Your task to perform on an android device: What's the weather like in Seoul? Image 0: 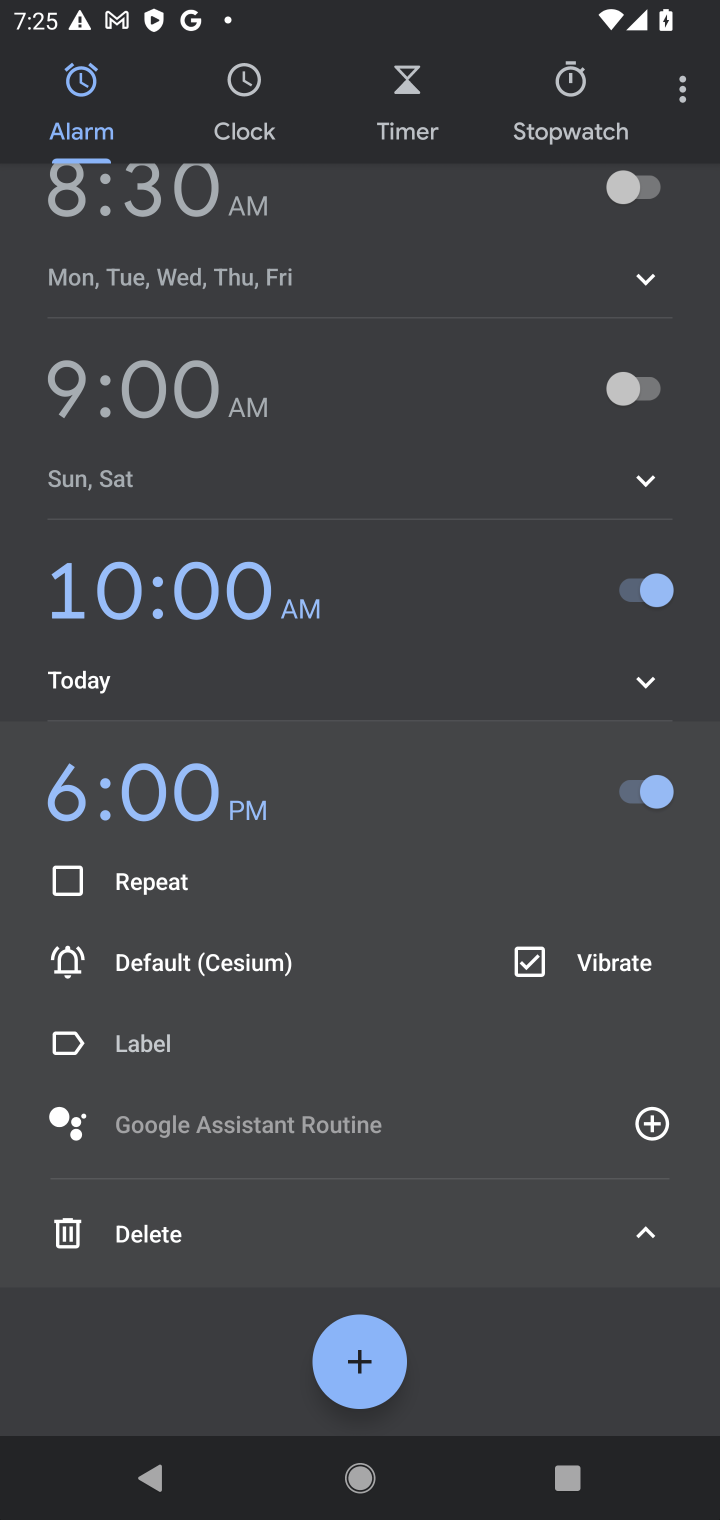
Step 0: press home button
Your task to perform on an android device: What's the weather like in Seoul? Image 1: 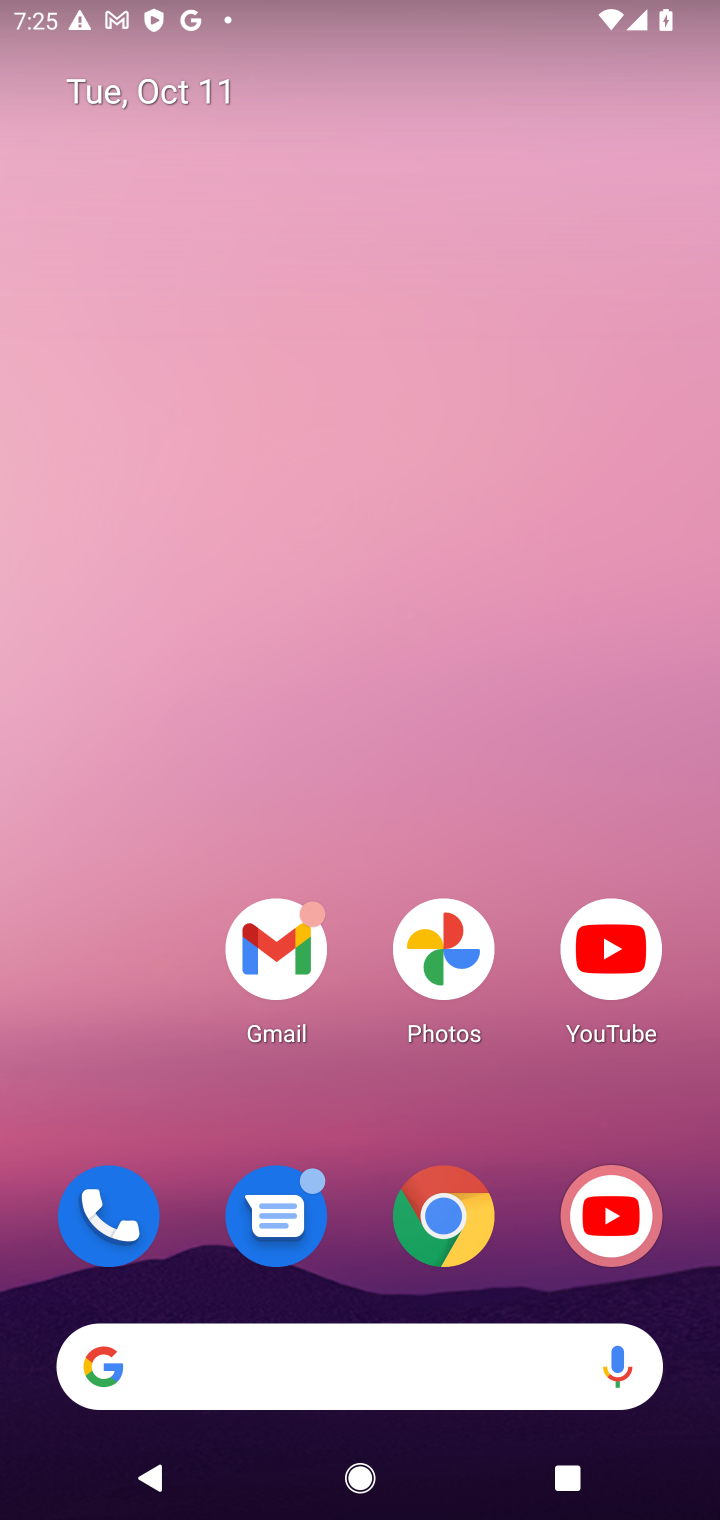
Step 1: click (429, 1214)
Your task to perform on an android device: What's the weather like in Seoul? Image 2: 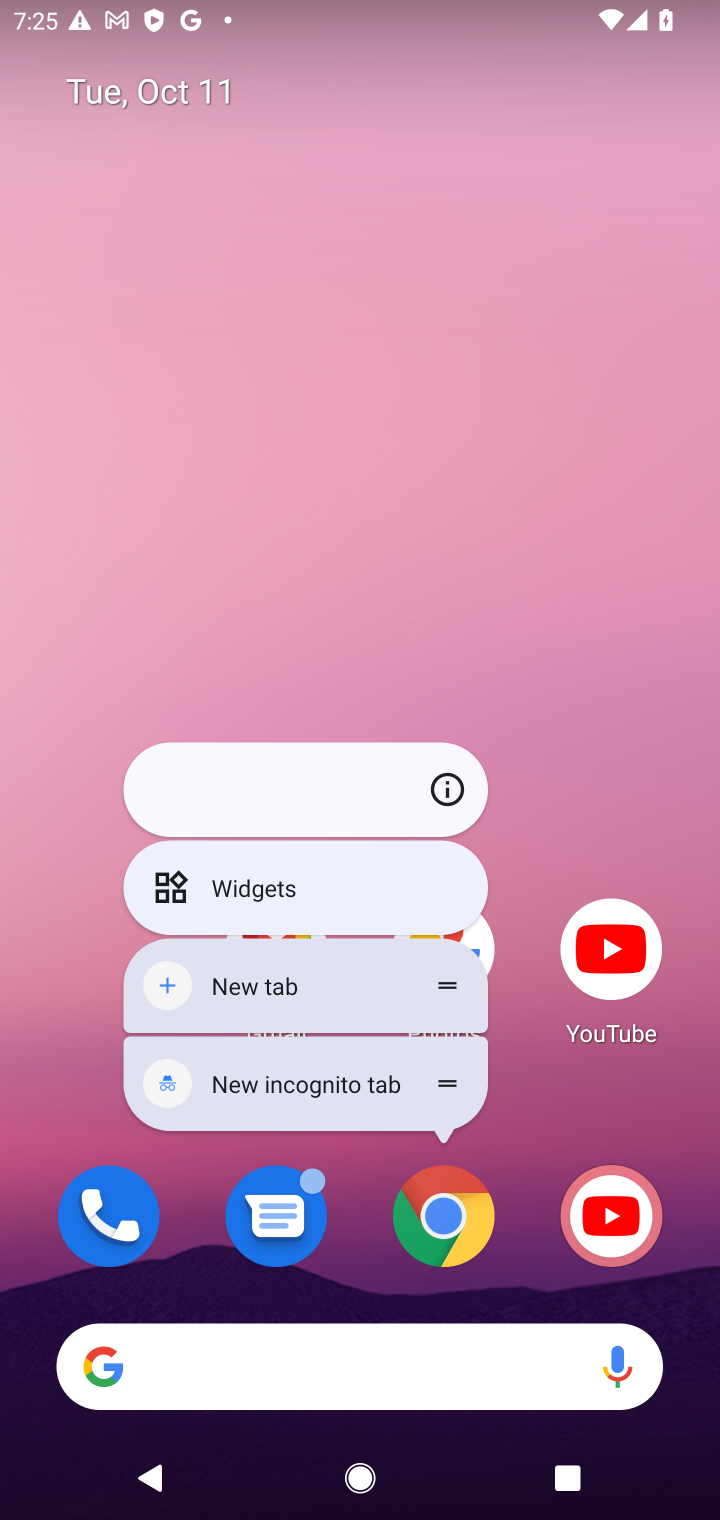
Step 2: click (466, 1219)
Your task to perform on an android device: What's the weather like in Seoul? Image 3: 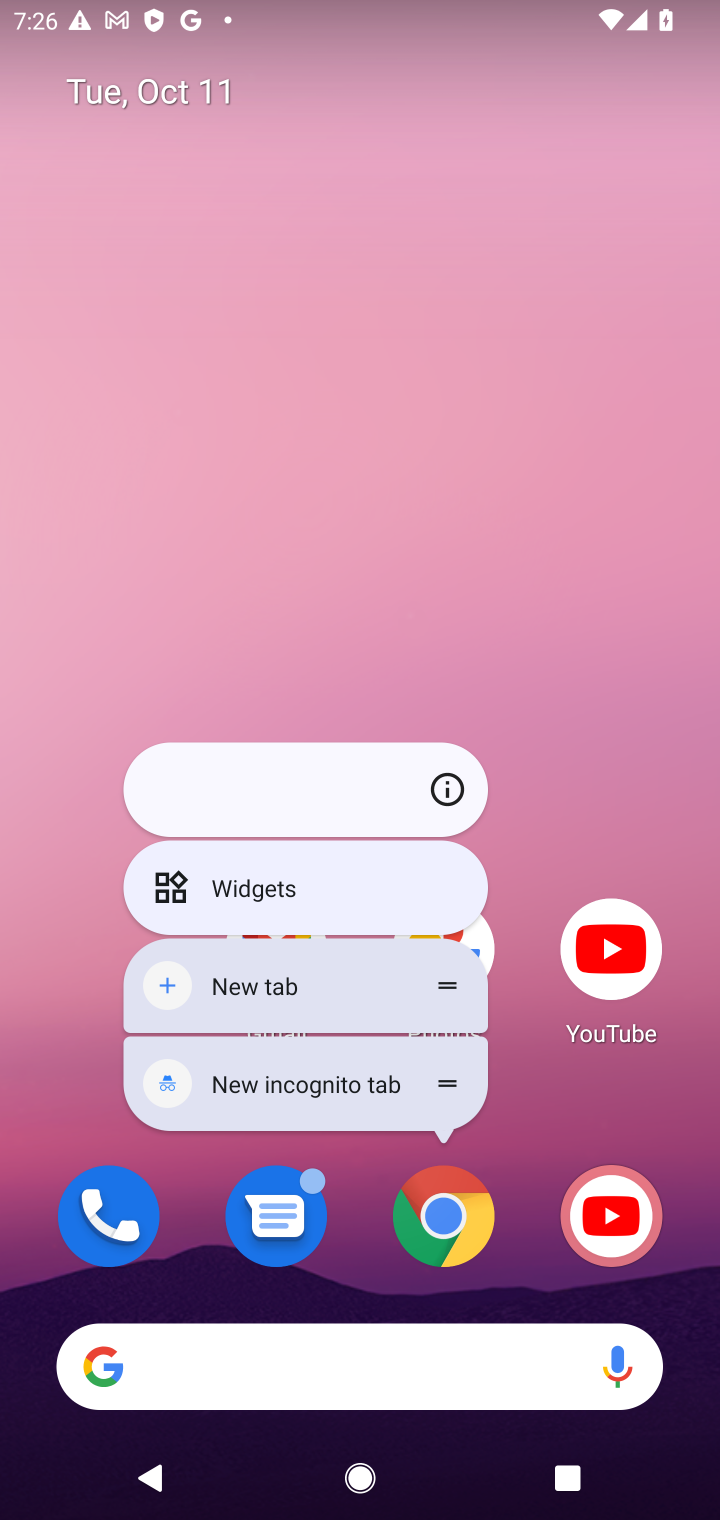
Step 3: click (459, 1224)
Your task to perform on an android device: What's the weather like in Seoul? Image 4: 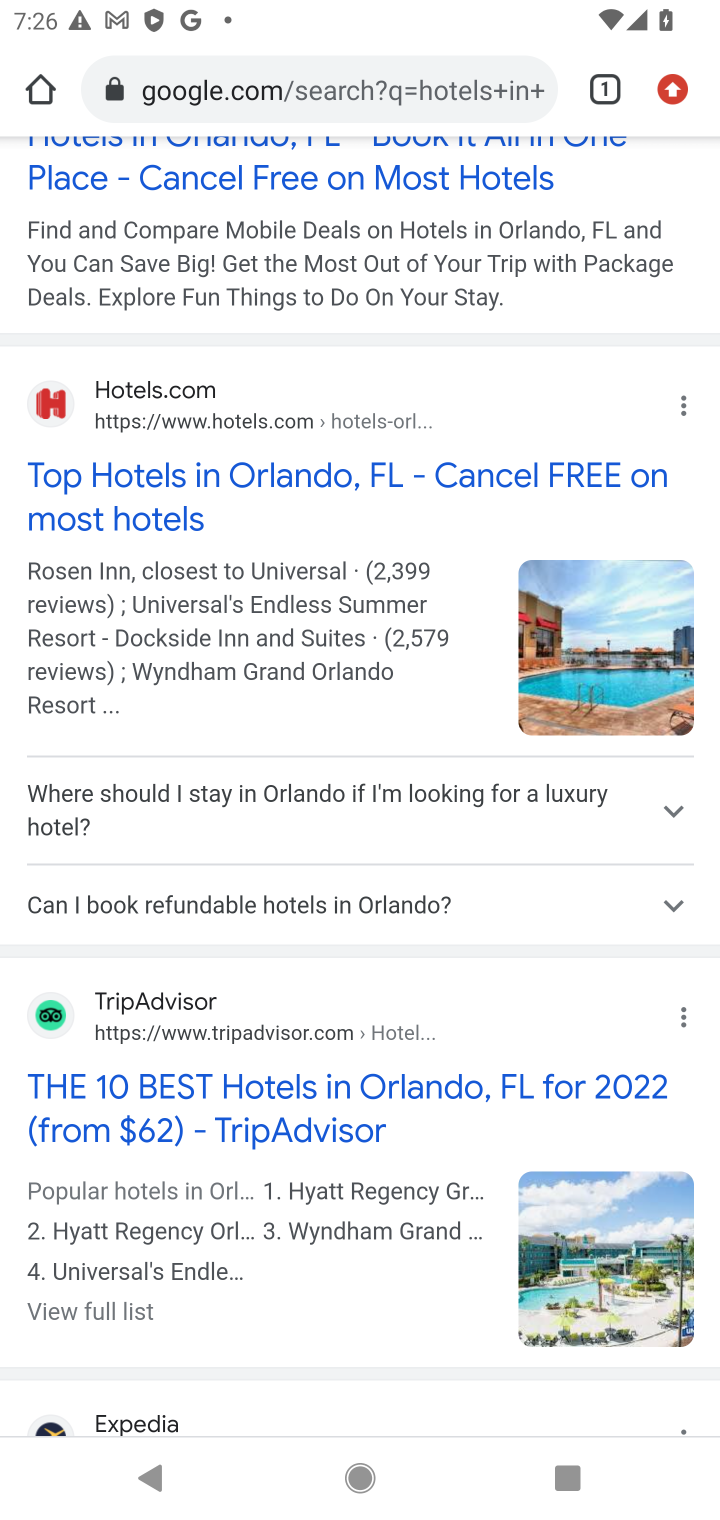
Step 4: click (309, 93)
Your task to perform on an android device: What's the weather like in Seoul? Image 5: 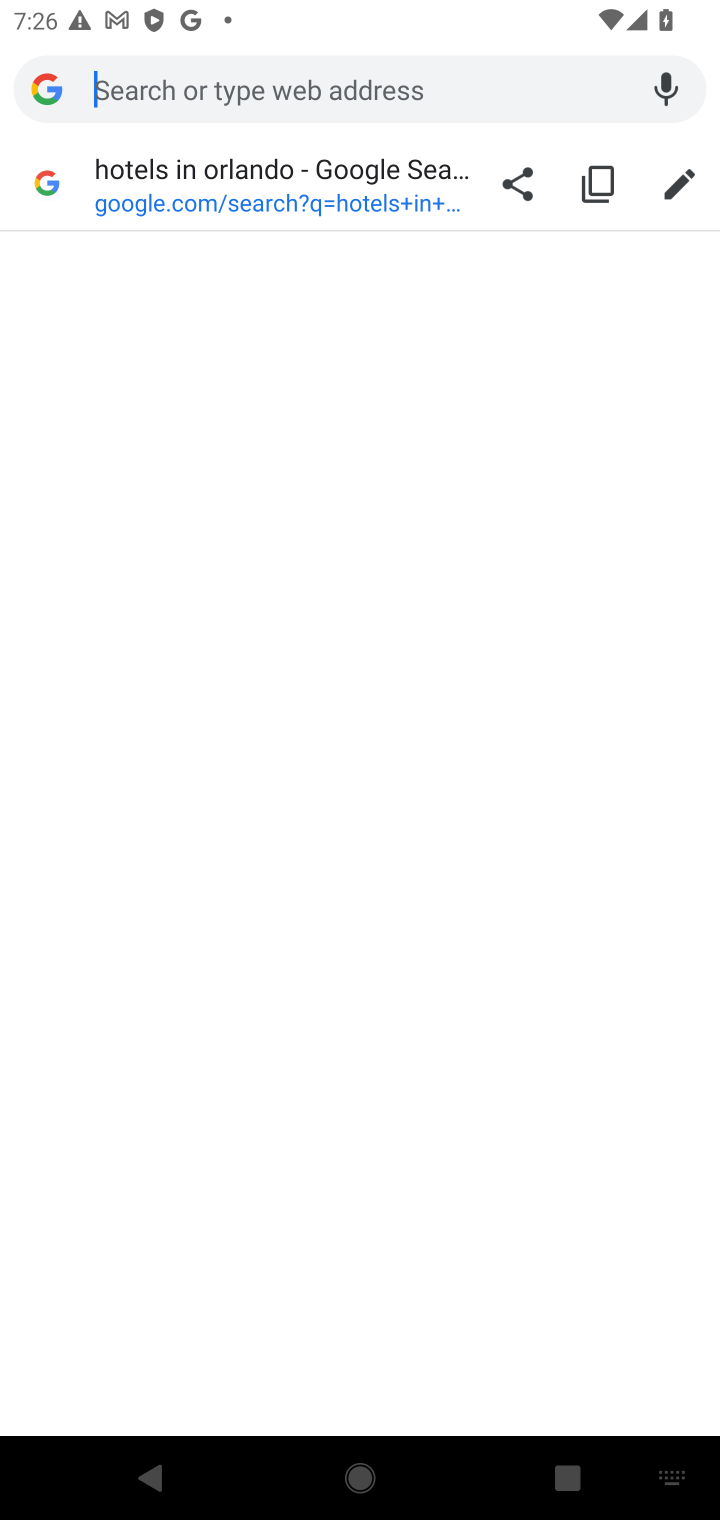
Step 5: type "weather in seoul"
Your task to perform on an android device: What's the weather like in Seoul? Image 6: 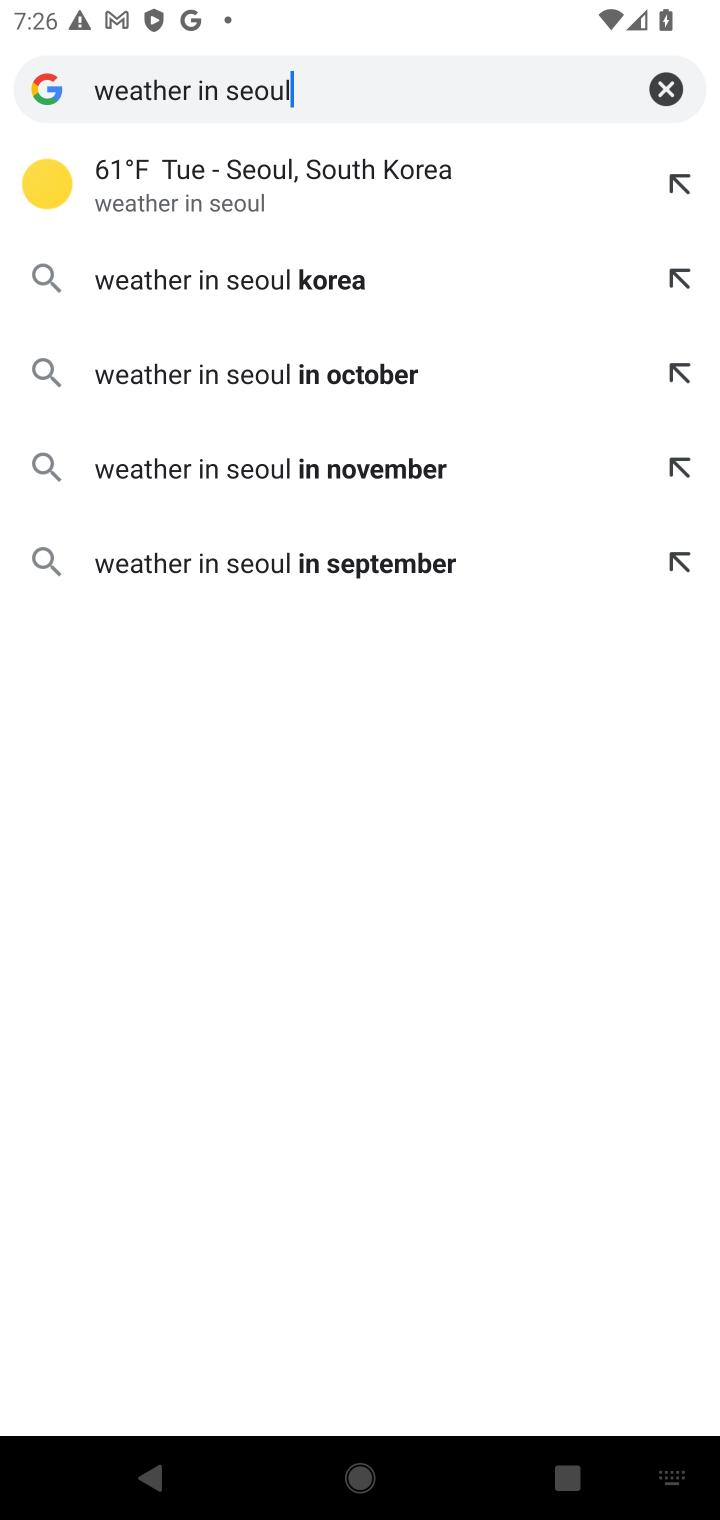
Step 6: press enter
Your task to perform on an android device: What's the weather like in Seoul? Image 7: 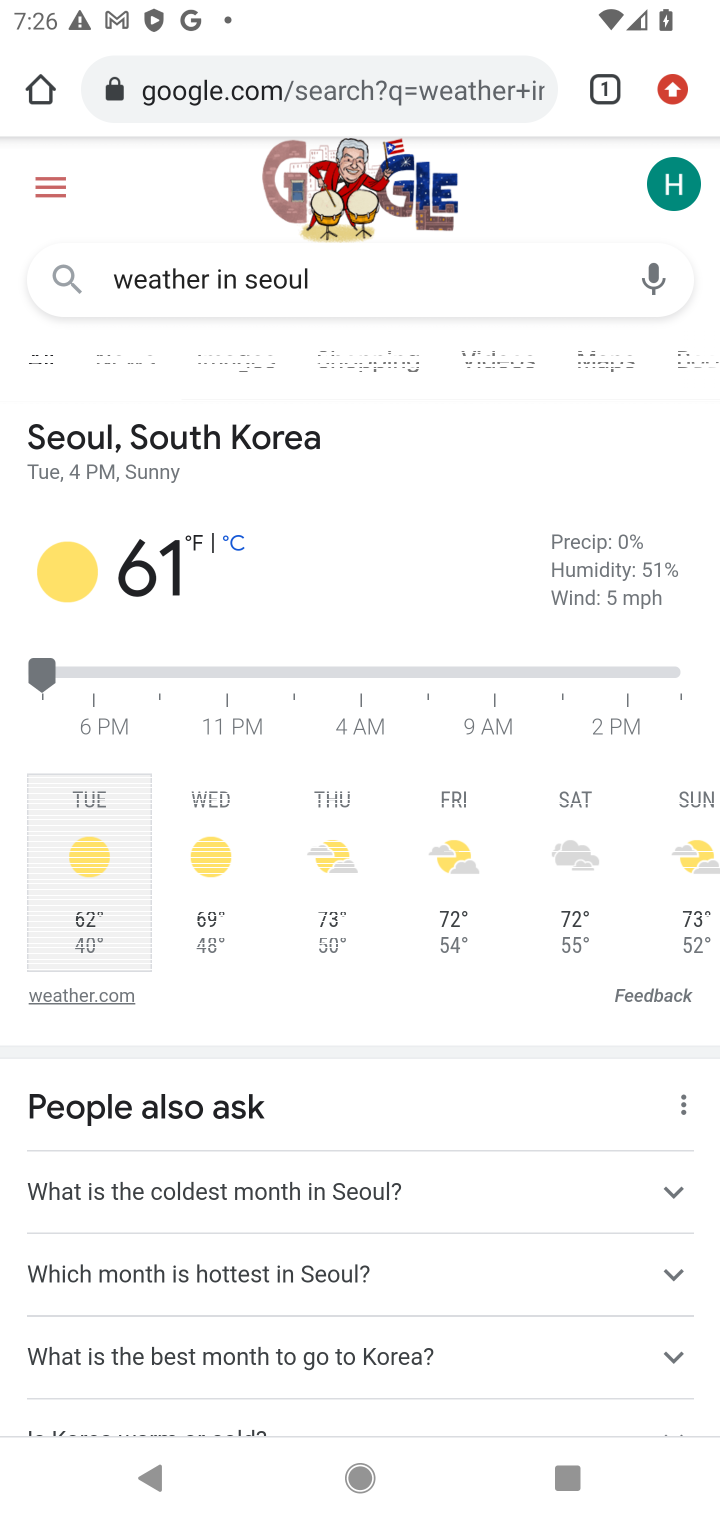
Step 7: task complete